Your task to perform on an android device: visit the assistant section in the google photos Image 0: 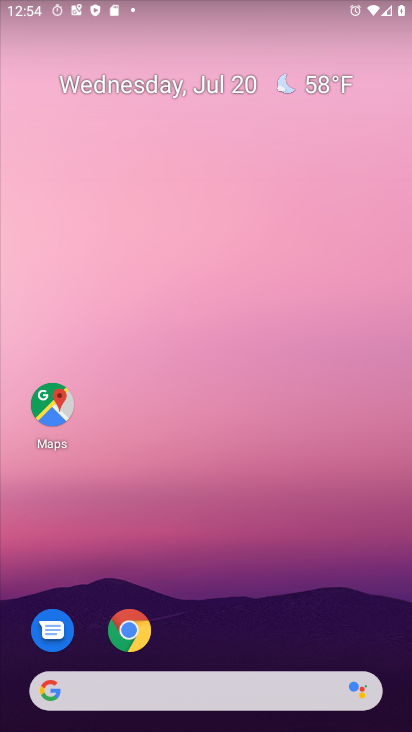
Step 0: drag from (138, 682) to (262, 68)
Your task to perform on an android device: visit the assistant section in the google photos Image 1: 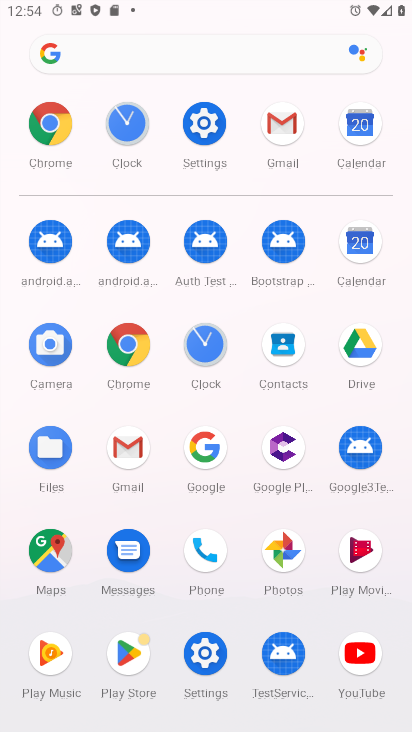
Step 1: click (289, 558)
Your task to perform on an android device: visit the assistant section in the google photos Image 2: 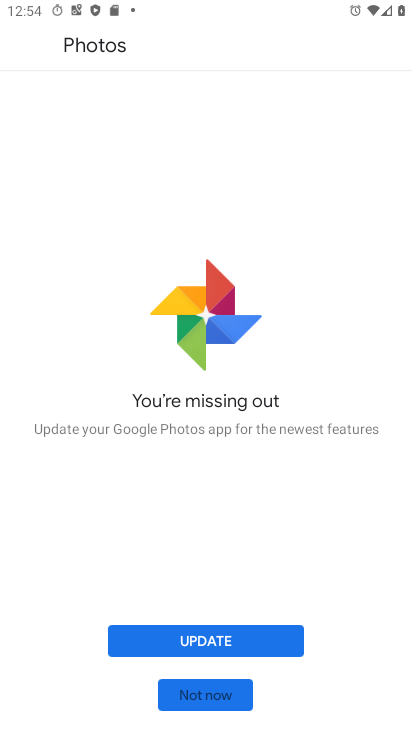
Step 2: click (230, 684)
Your task to perform on an android device: visit the assistant section in the google photos Image 3: 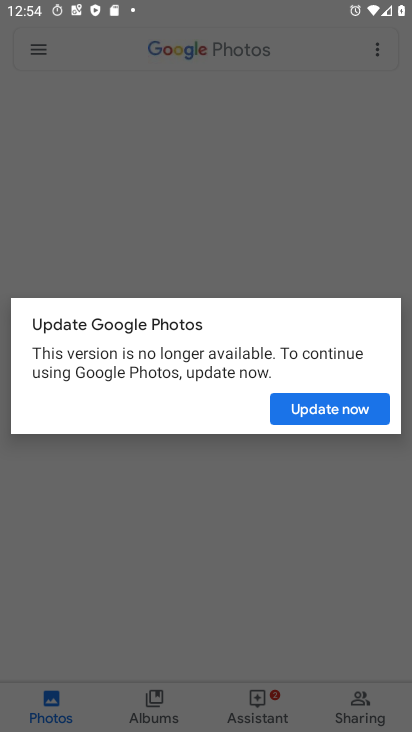
Step 3: click (329, 405)
Your task to perform on an android device: visit the assistant section in the google photos Image 4: 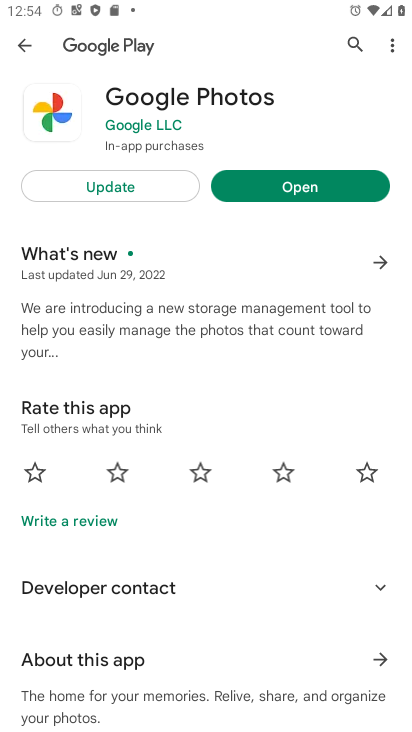
Step 4: click (299, 188)
Your task to perform on an android device: visit the assistant section in the google photos Image 5: 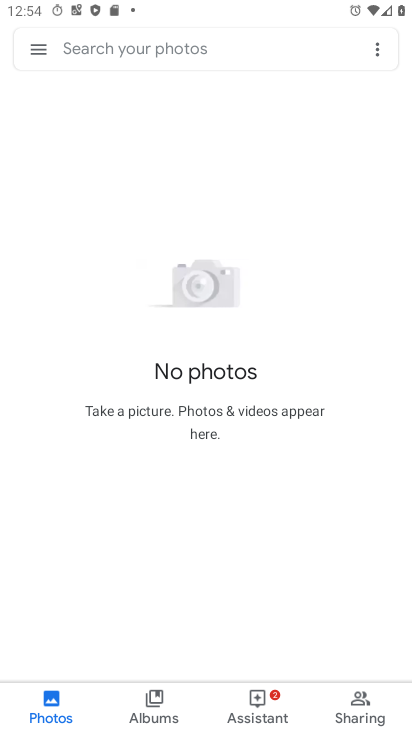
Step 5: click (253, 701)
Your task to perform on an android device: visit the assistant section in the google photos Image 6: 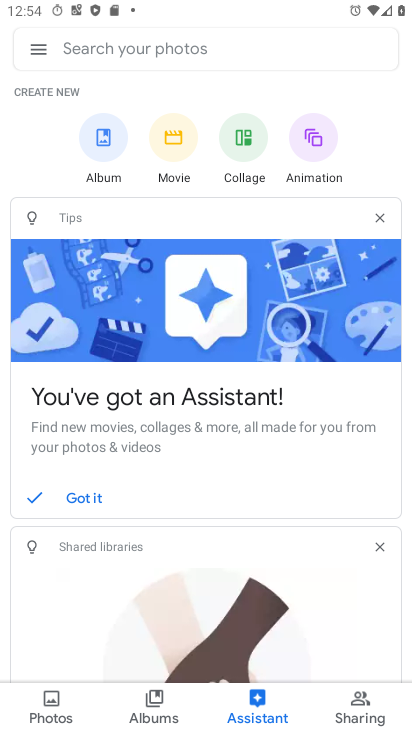
Step 6: task complete